Your task to perform on an android device: Search for Mexican restaurants on Maps Image 0: 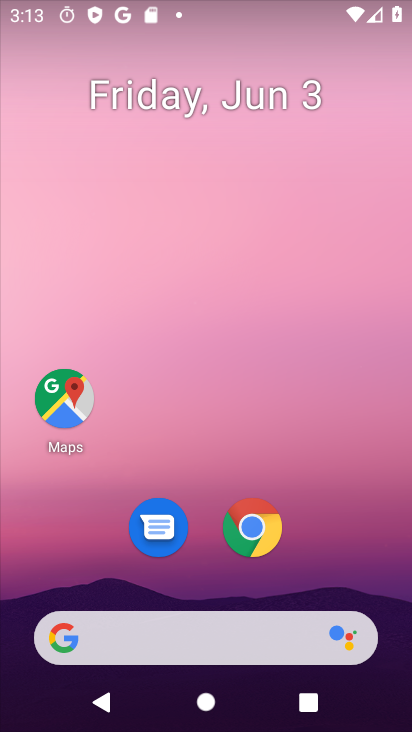
Step 0: drag from (264, 584) to (250, 204)
Your task to perform on an android device: Search for Mexican restaurants on Maps Image 1: 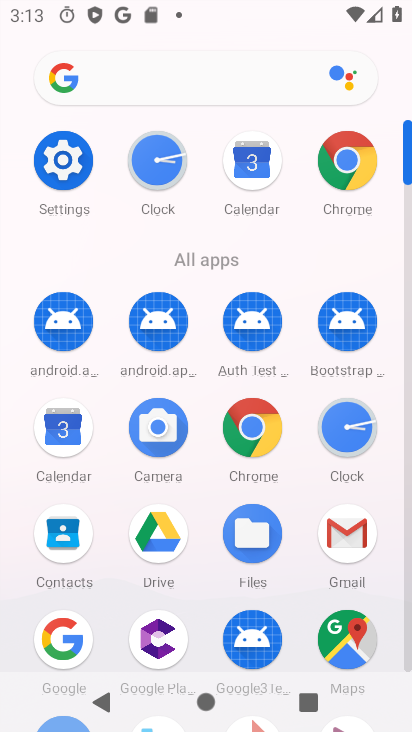
Step 1: click (340, 626)
Your task to perform on an android device: Search for Mexican restaurants on Maps Image 2: 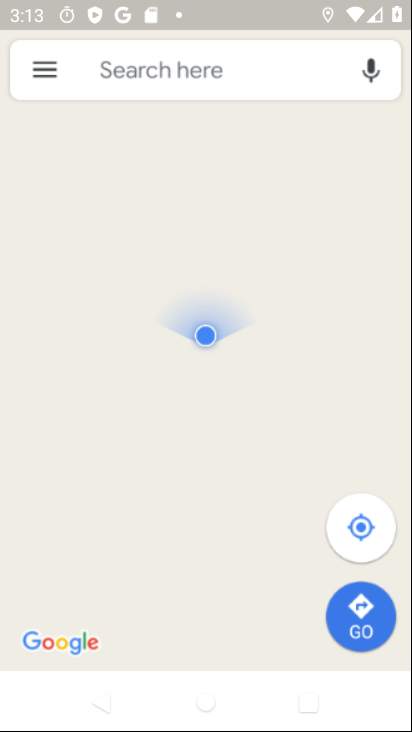
Step 2: click (146, 74)
Your task to perform on an android device: Search for Mexican restaurants on Maps Image 3: 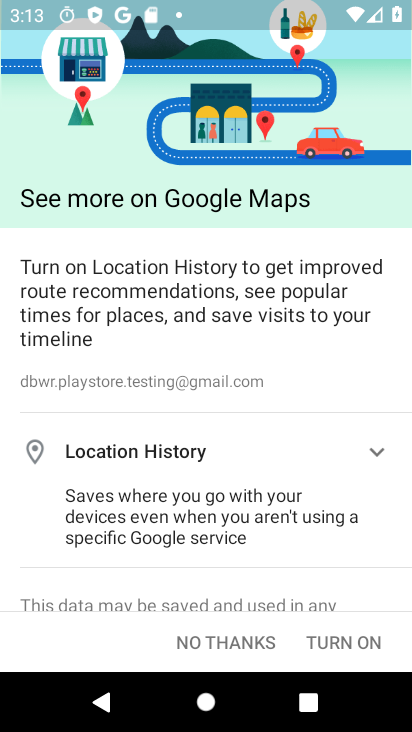
Step 3: click (251, 640)
Your task to perform on an android device: Search for Mexican restaurants on Maps Image 4: 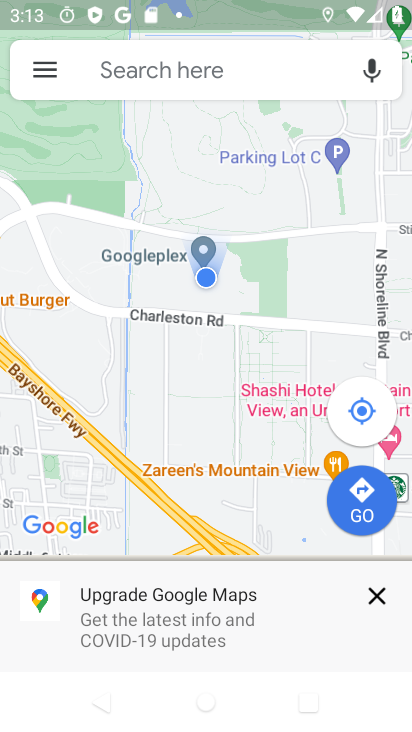
Step 4: click (175, 61)
Your task to perform on an android device: Search for Mexican restaurants on Maps Image 5: 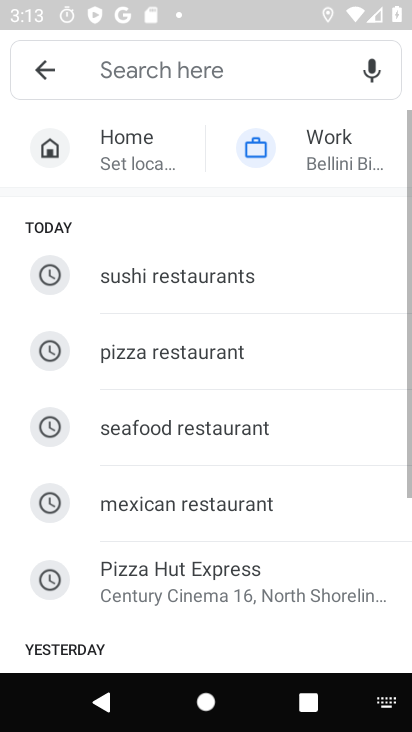
Step 5: type "Mexican restaurants"
Your task to perform on an android device: Search for Mexican restaurants on Maps Image 6: 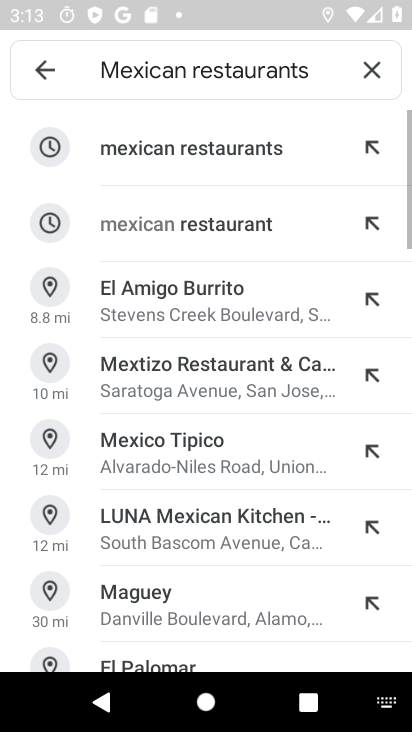
Step 6: click (177, 148)
Your task to perform on an android device: Search for Mexican restaurants on Maps Image 7: 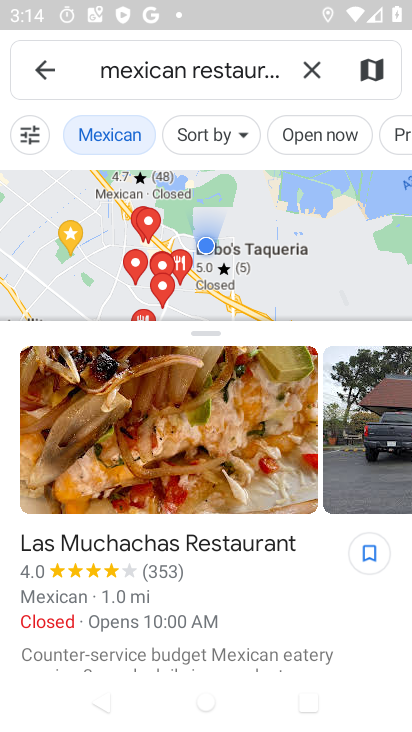
Step 7: task complete